Your task to perform on an android device: turn off smart reply in the gmail app Image 0: 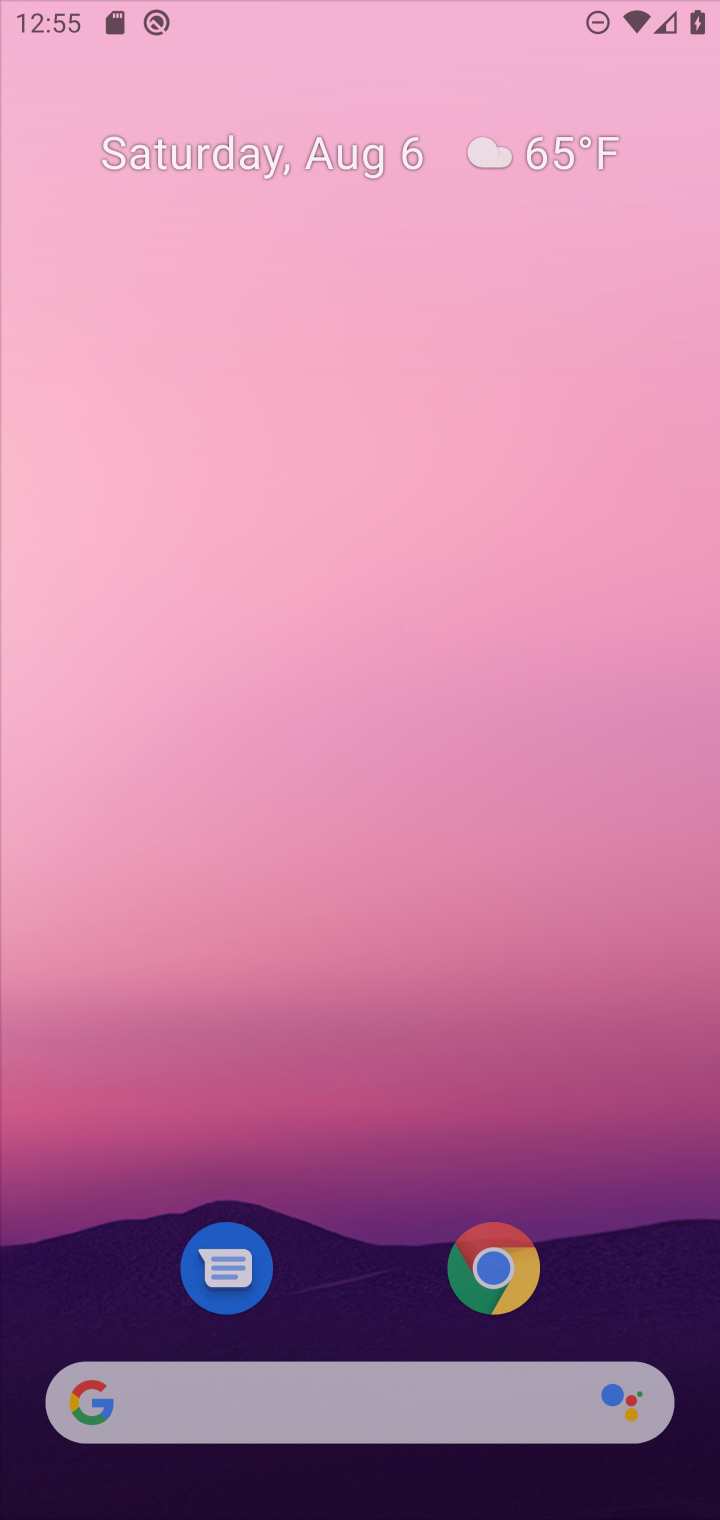
Step 0: press home button
Your task to perform on an android device: turn off smart reply in the gmail app Image 1: 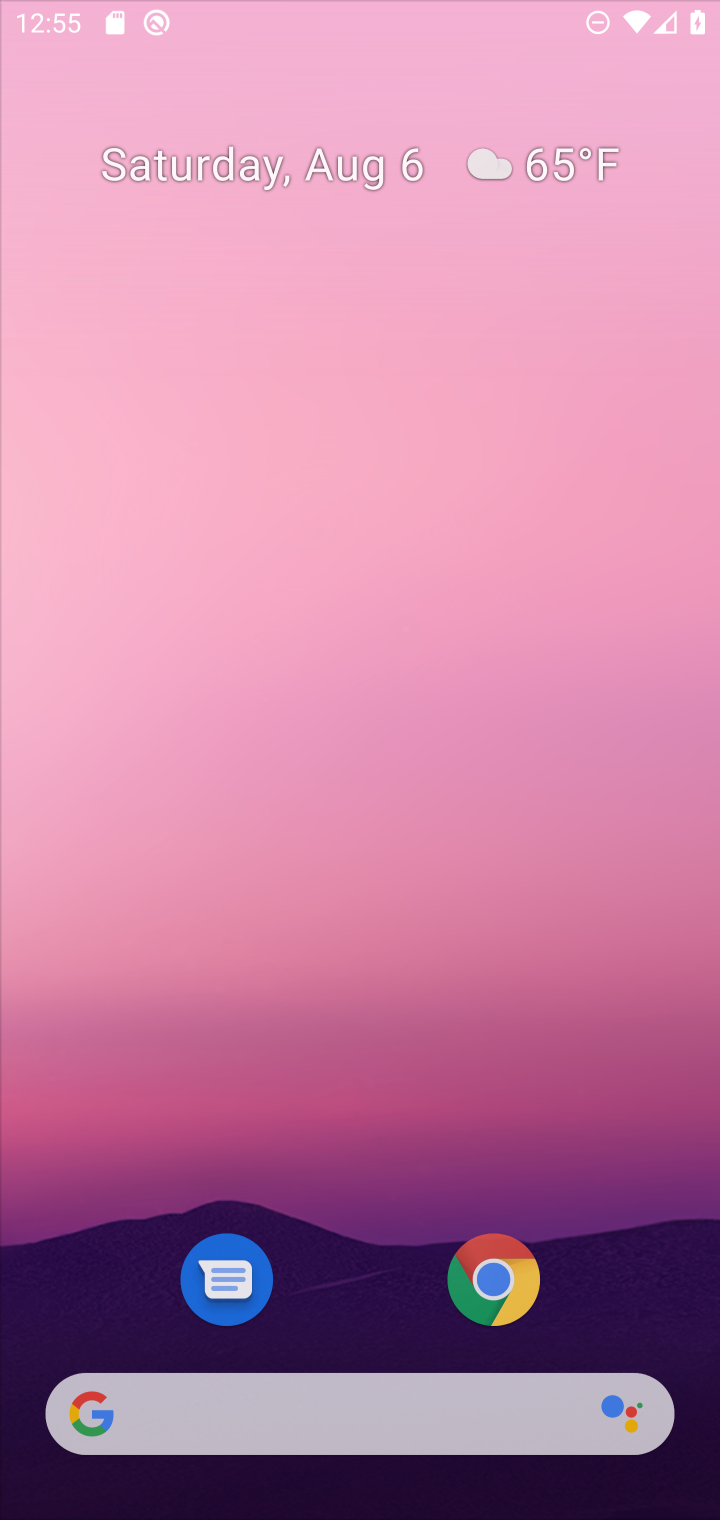
Step 1: drag from (322, 1390) to (426, 85)
Your task to perform on an android device: turn off smart reply in the gmail app Image 2: 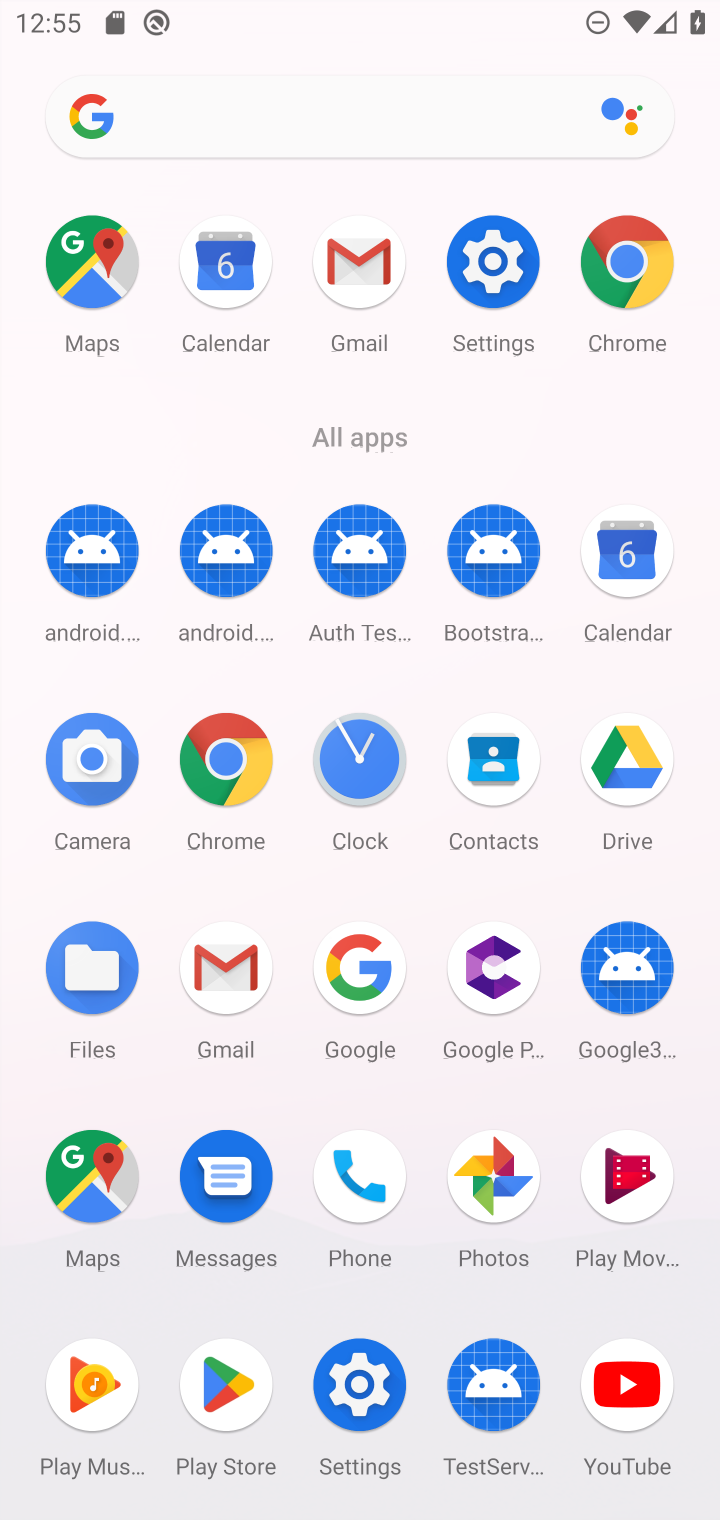
Step 2: click (211, 947)
Your task to perform on an android device: turn off smart reply in the gmail app Image 3: 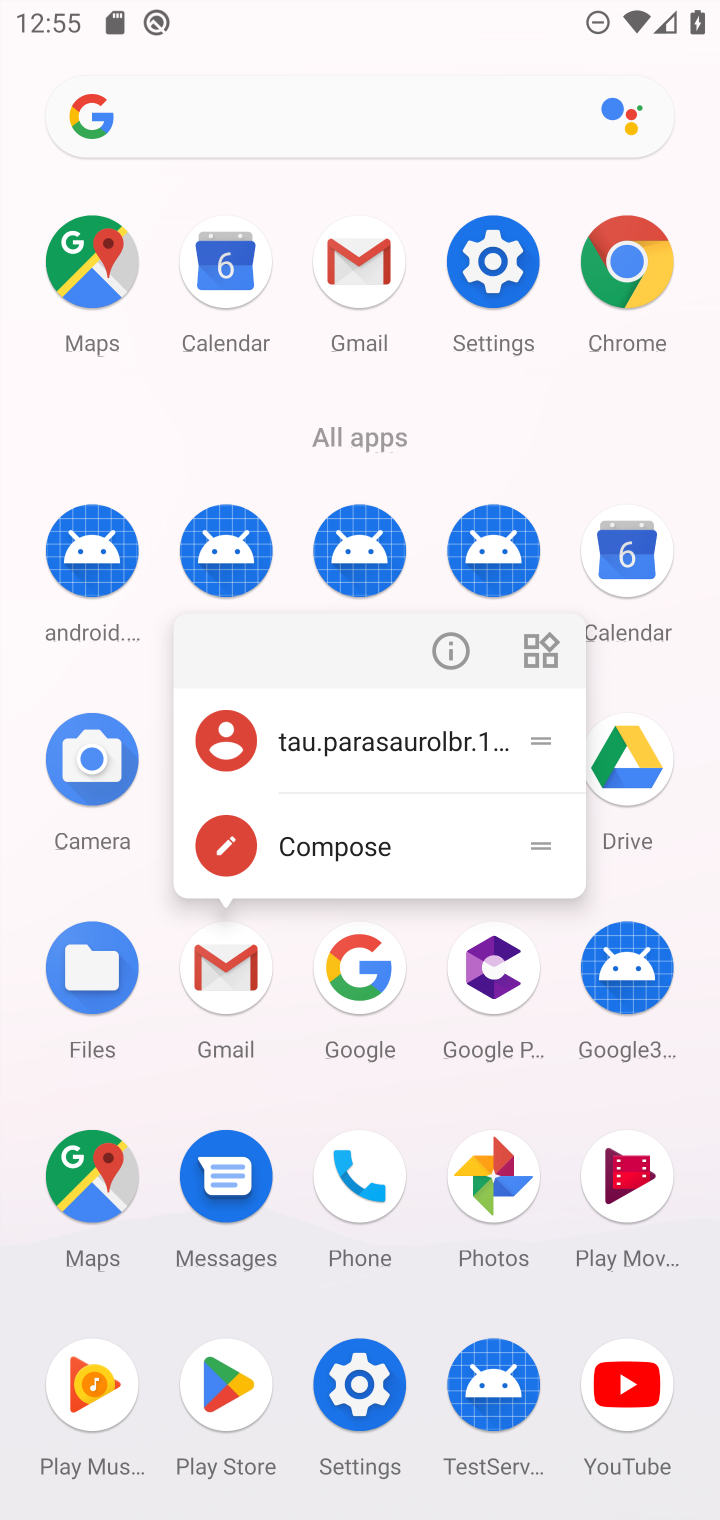
Step 3: click (215, 975)
Your task to perform on an android device: turn off smart reply in the gmail app Image 4: 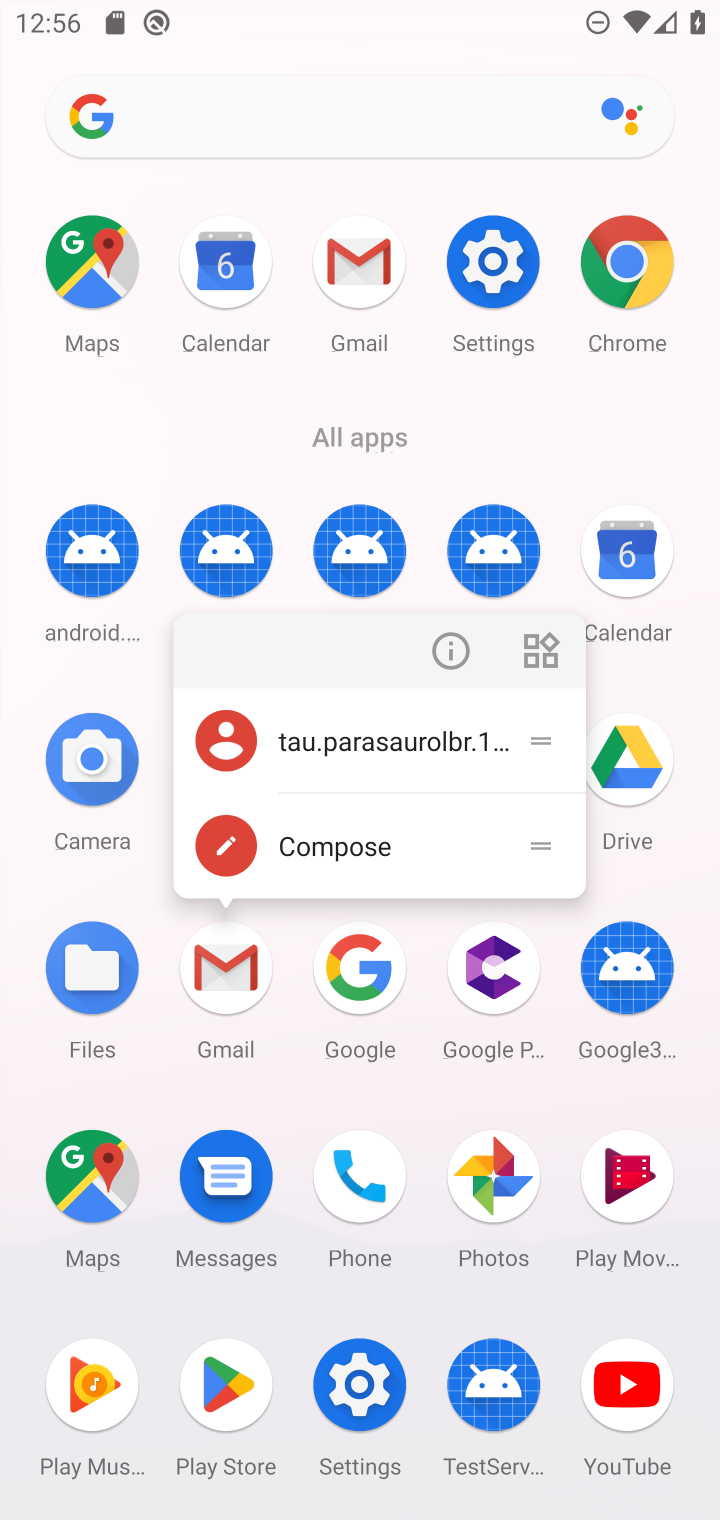
Step 4: click (227, 1003)
Your task to perform on an android device: turn off smart reply in the gmail app Image 5: 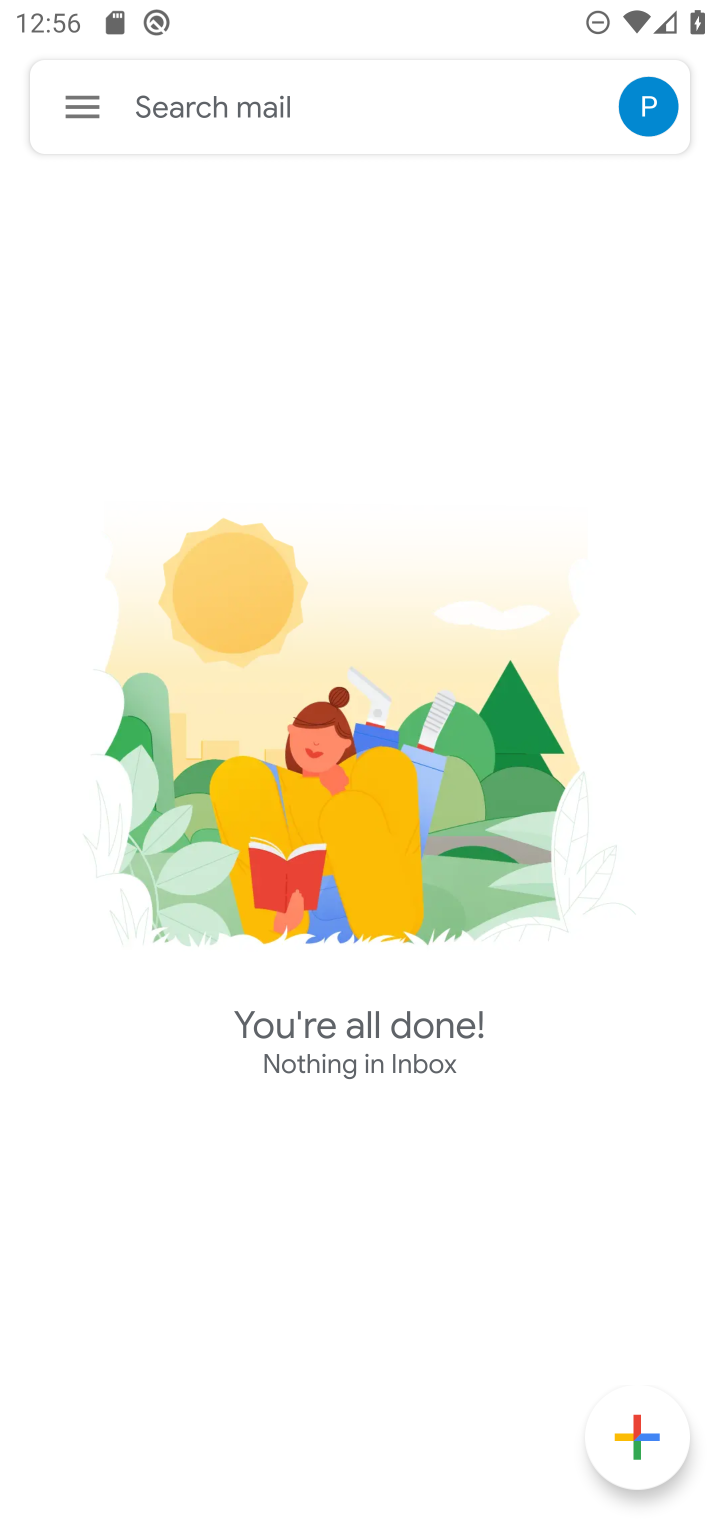
Step 5: click (93, 106)
Your task to perform on an android device: turn off smart reply in the gmail app Image 6: 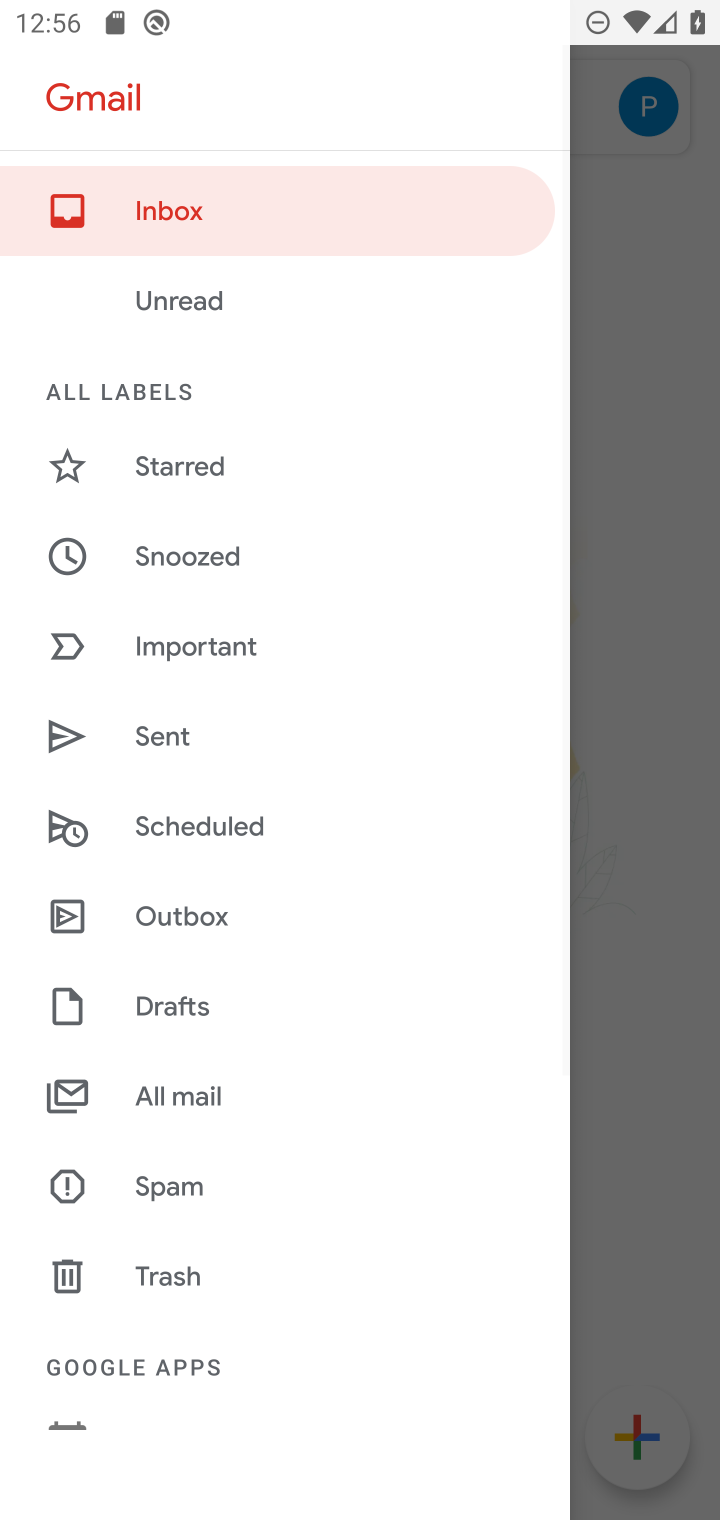
Step 6: drag from (222, 1008) to (144, 291)
Your task to perform on an android device: turn off smart reply in the gmail app Image 7: 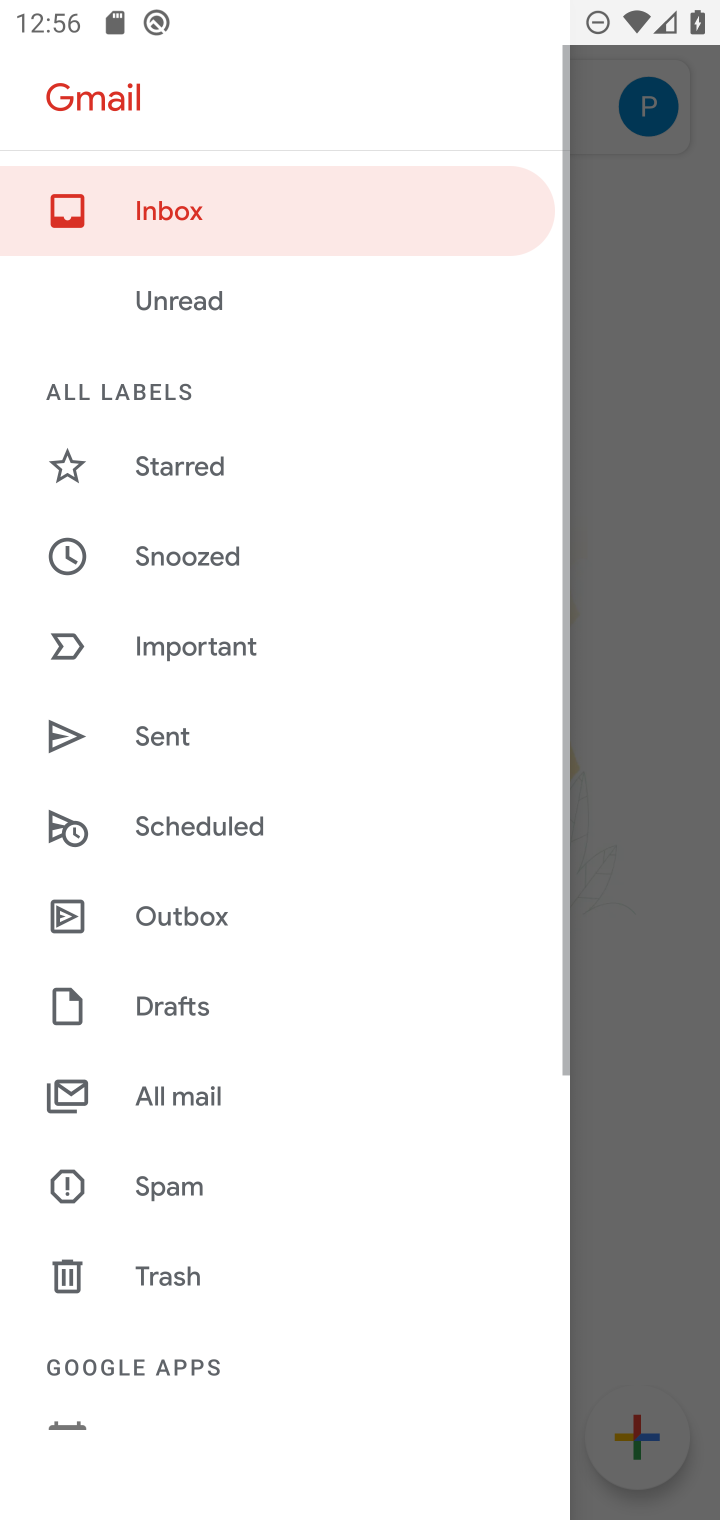
Step 7: drag from (104, 1289) to (149, 363)
Your task to perform on an android device: turn off smart reply in the gmail app Image 8: 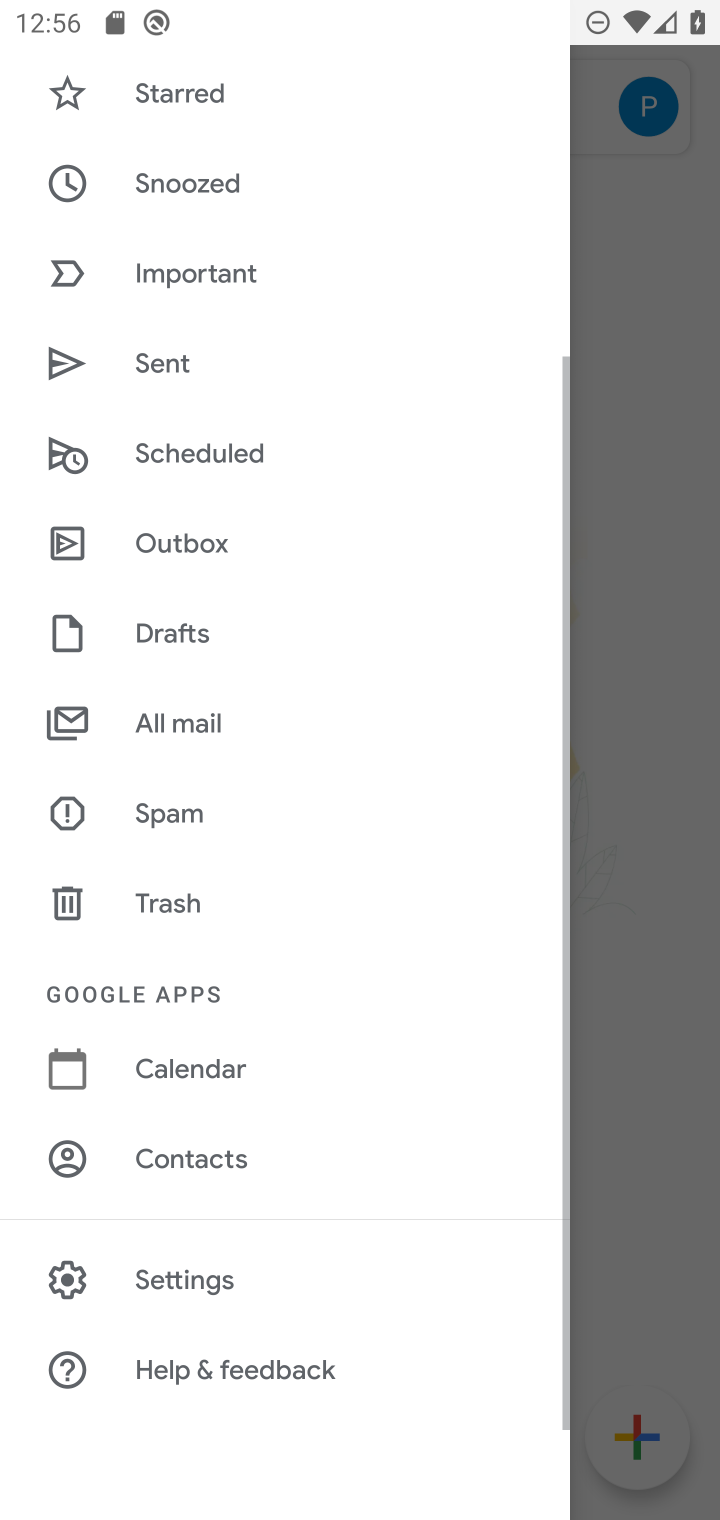
Step 8: click (187, 1255)
Your task to perform on an android device: turn off smart reply in the gmail app Image 9: 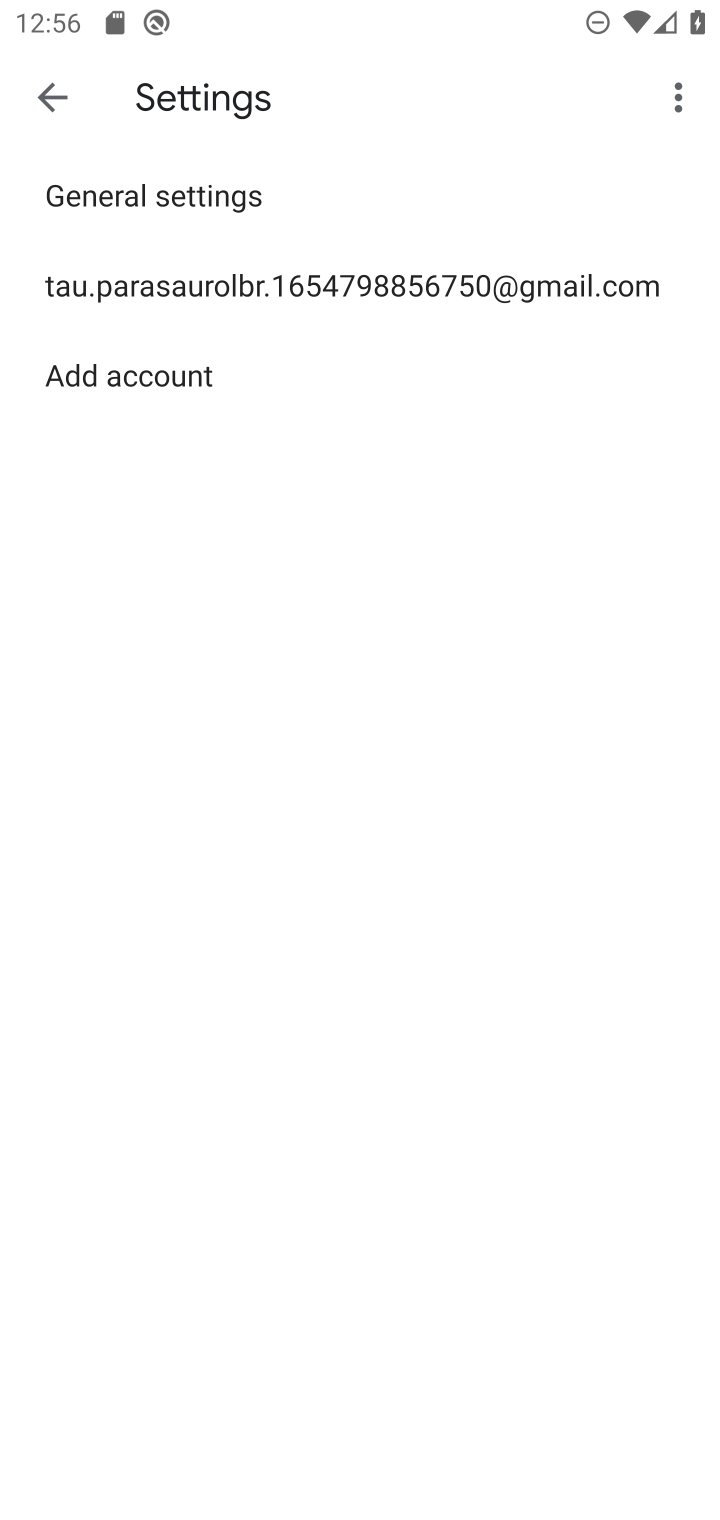
Step 9: click (136, 297)
Your task to perform on an android device: turn off smart reply in the gmail app Image 10: 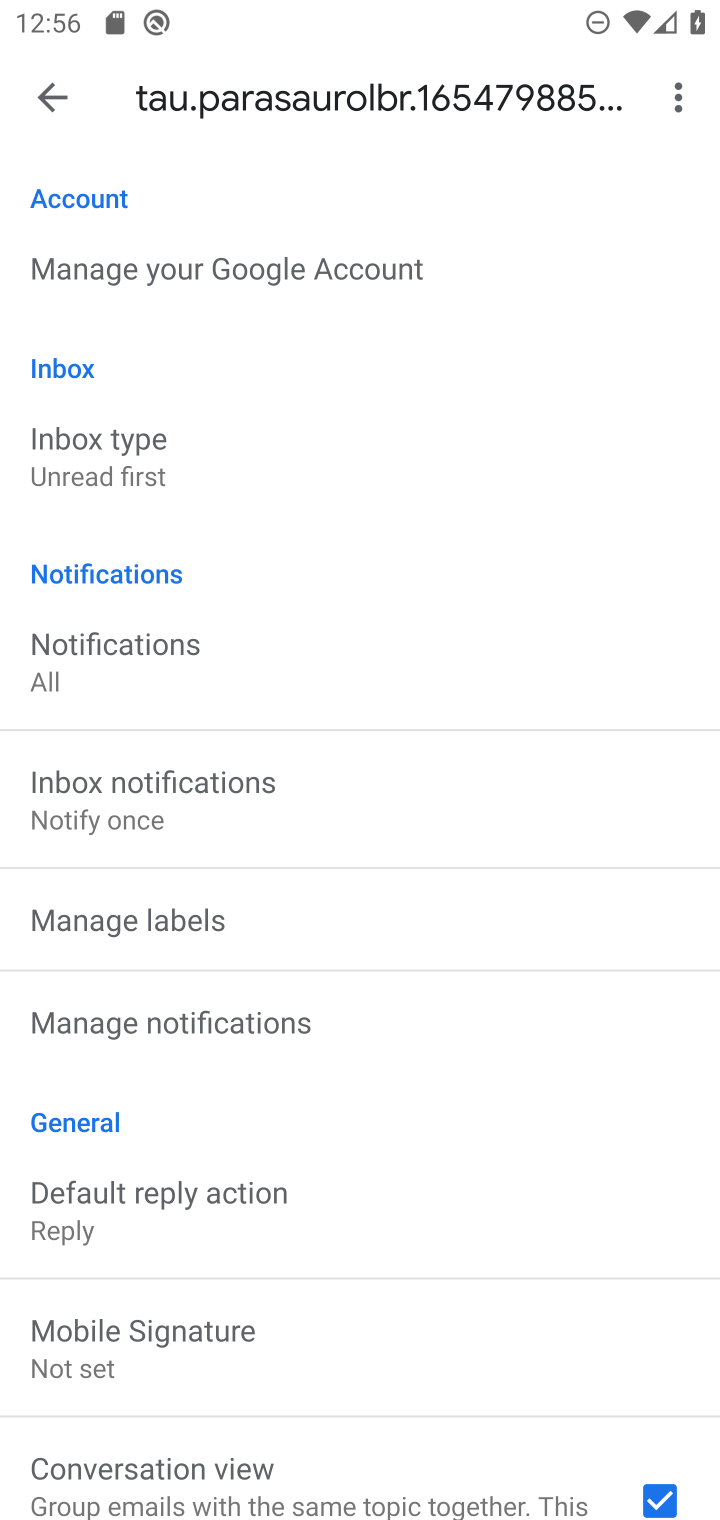
Step 10: drag from (255, 1211) to (288, 122)
Your task to perform on an android device: turn off smart reply in the gmail app Image 11: 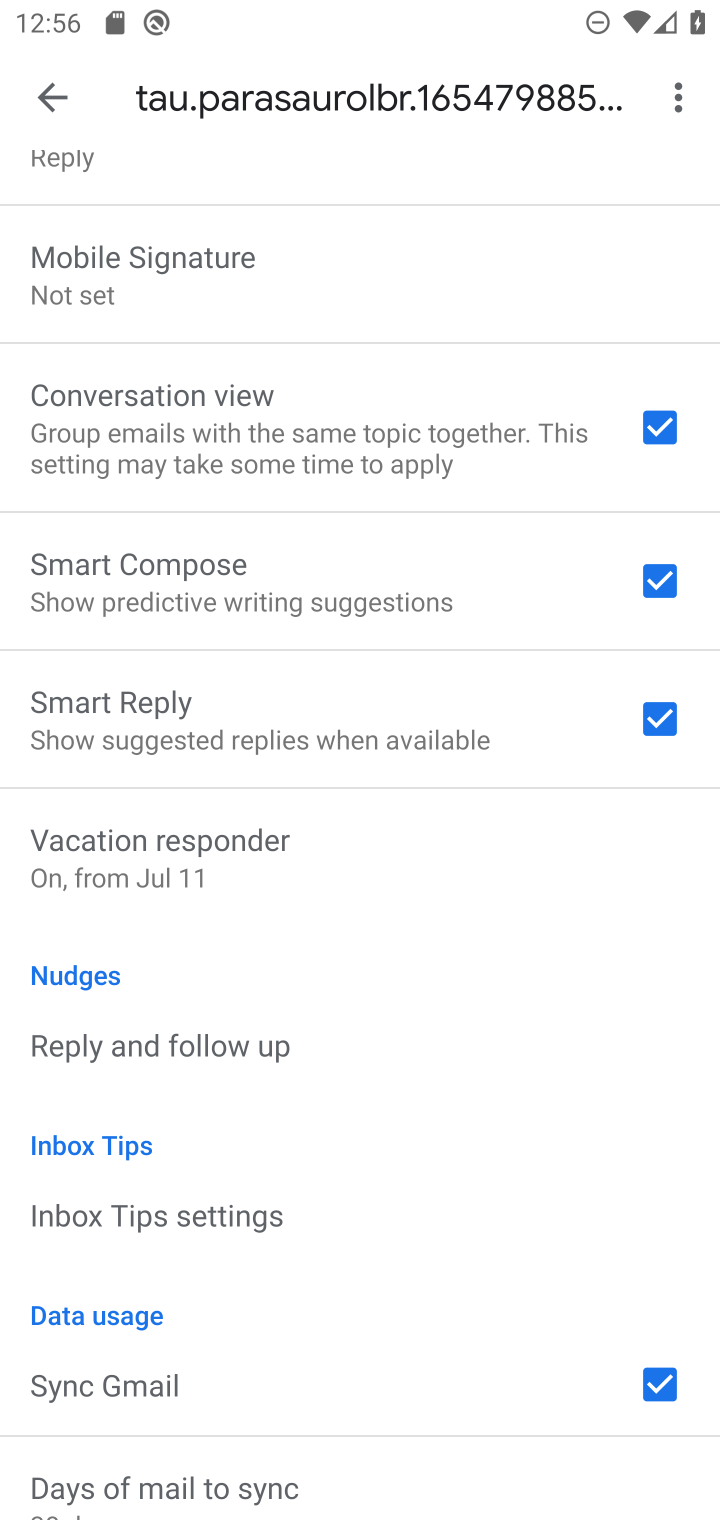
Step 11: click (632, 746)
Your task to perform on an android device: turn off smart reply in the gmail app Image 12: 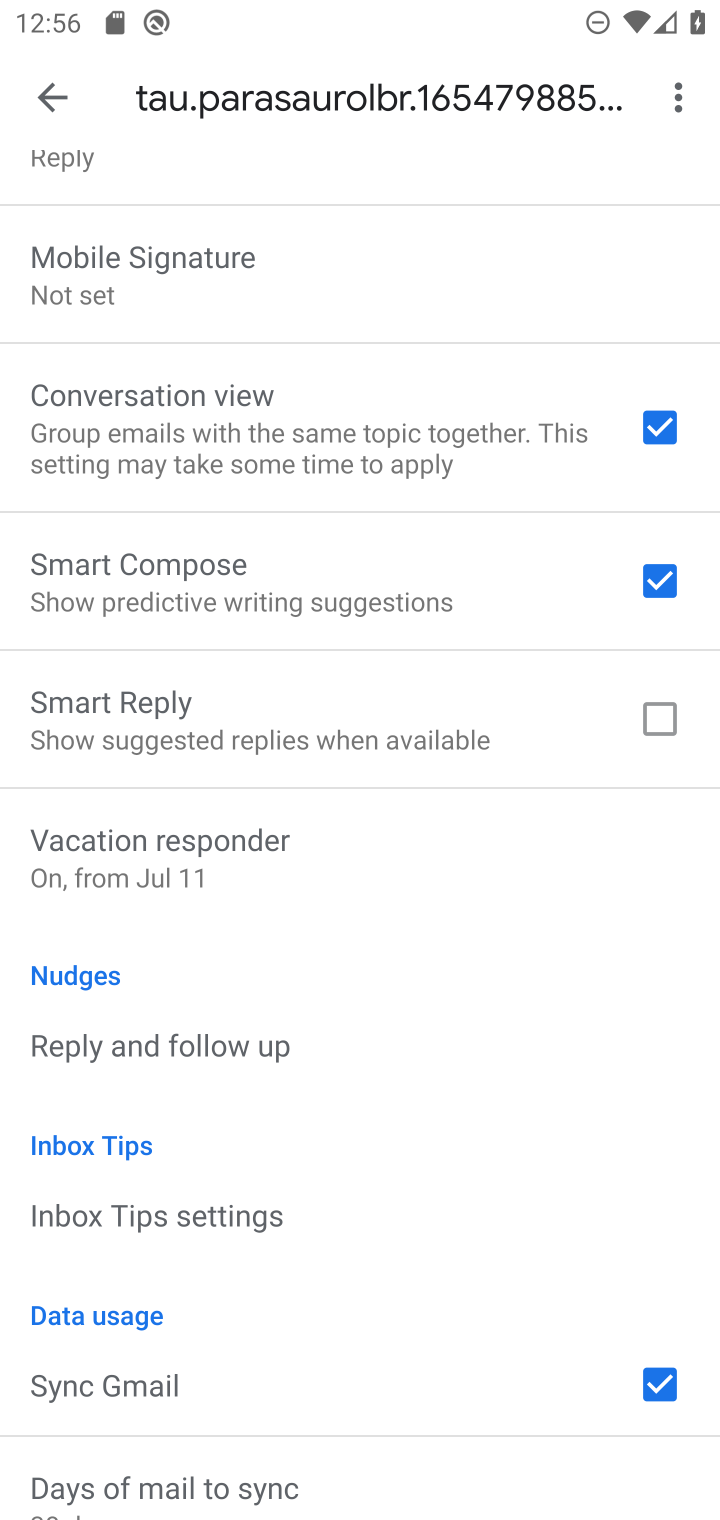
Step 12: task complete